Your task to perform on an android device: open chrome privacy settings Image 0: 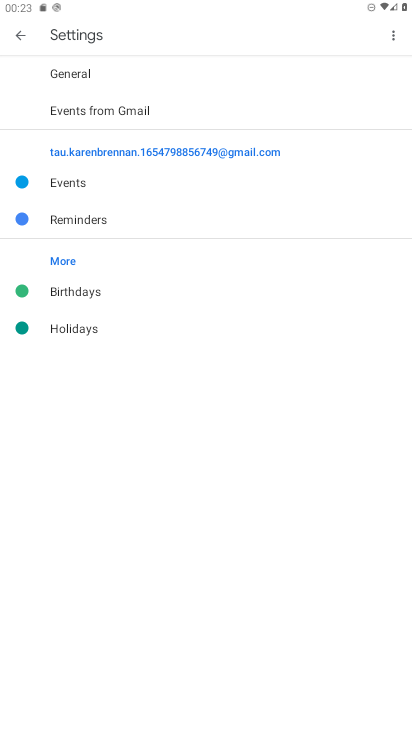
Step 0: drag from (279, 624) to (409, 267)
Your task to perform on an android device: open chrome privacy settings Image 1: 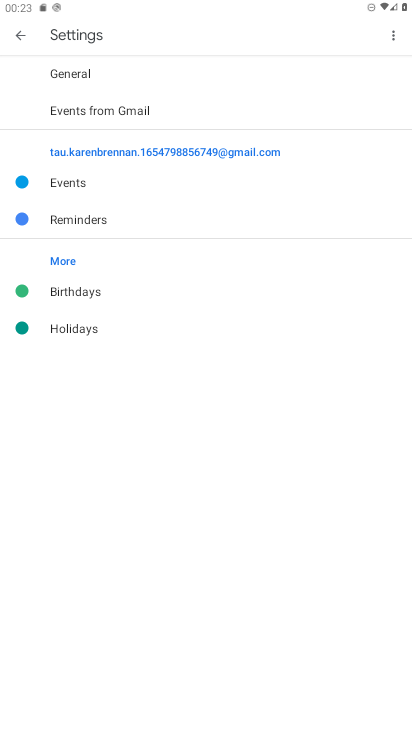
Step 1: press home button
Your task to perform on an android device: open chrome privacy settings Image 2: 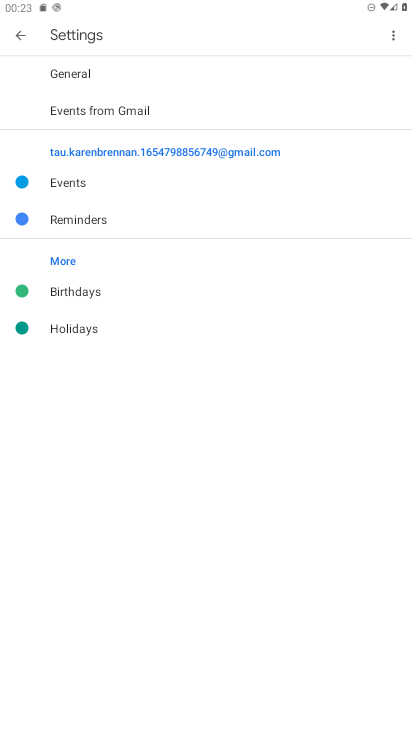
Step 2: click (404, 522)
Your task to perform on an android device: open chrome privacy settings Image 3: 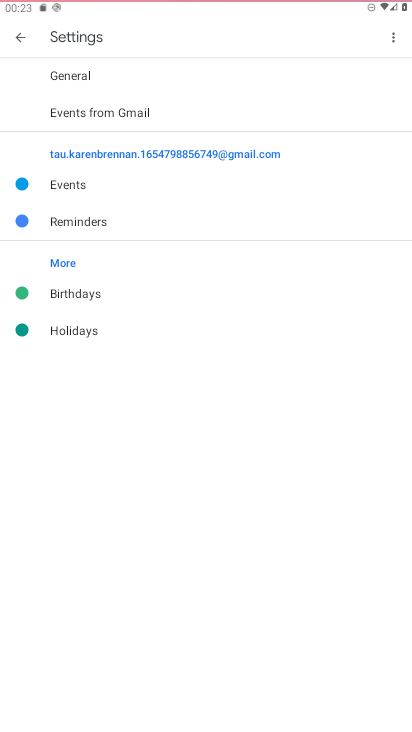
Step 3: drag from (333, 436) to (373, 510)
Your task to perform on an android device: open chrome privacy settings Image 4: 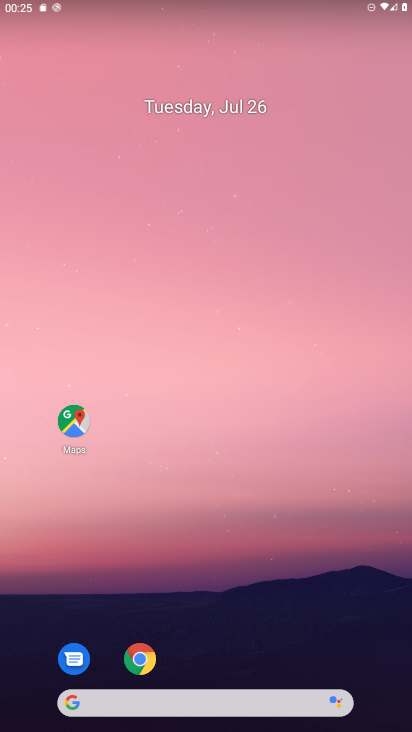
Step 4: drag from (277, 661) to (287, 15)
Your task to perform on an android device: open chrome privacy settings Image 5: 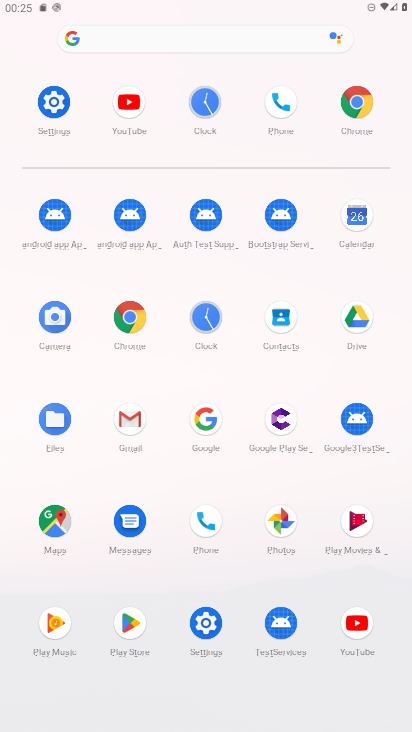
Step 5: click (144, 334)
Your task to perform on an android device: open chrome privacy settings Image 6: 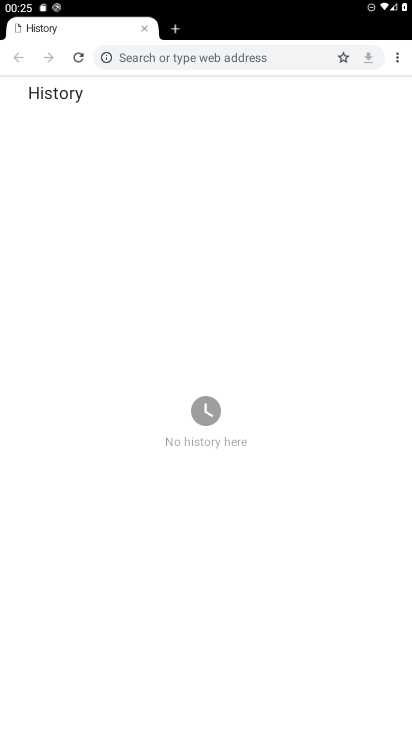
Step 6: drag from (394, 45) to (273, 300)
Your task to perform on an android device: open chrome privacy settings Image 7: 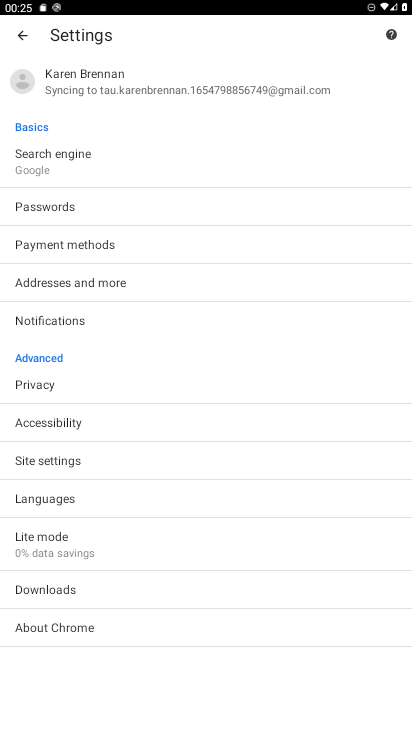
Step 7: click (36, 374)
Your task to perform on an android device: open chrome privacy settings Image 8: 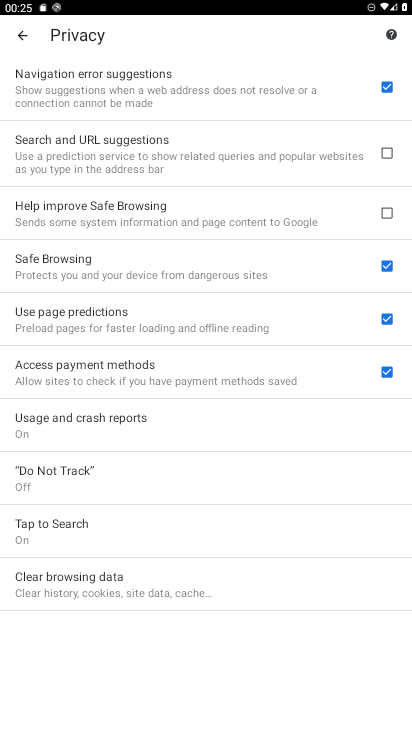
Step 8: task complete